Your task to perform on an android device: turn off translation in the chrome app Image 0: 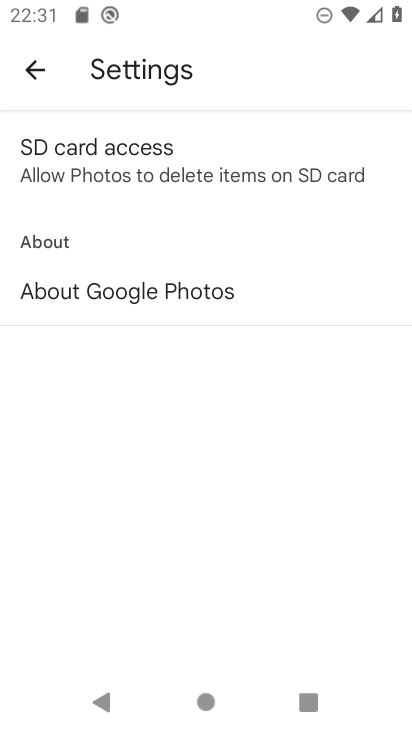
Step 0: press home button
Your task to perform on an android device: turn off translation in the chrome app Image 1: 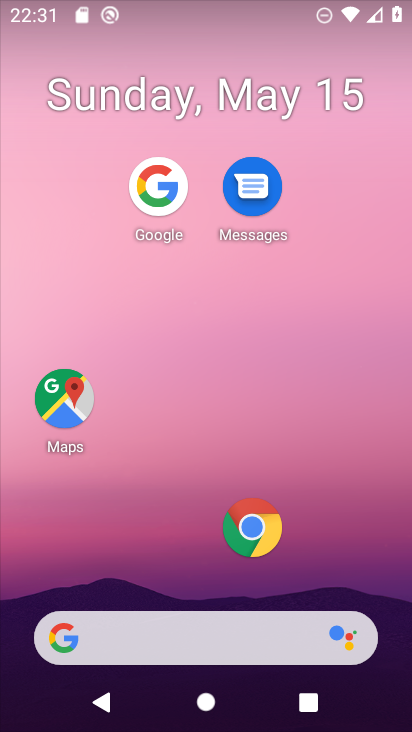
Step 1: press home button
Your task to perform on an android device: turn off translation in the chrome app Image 2: 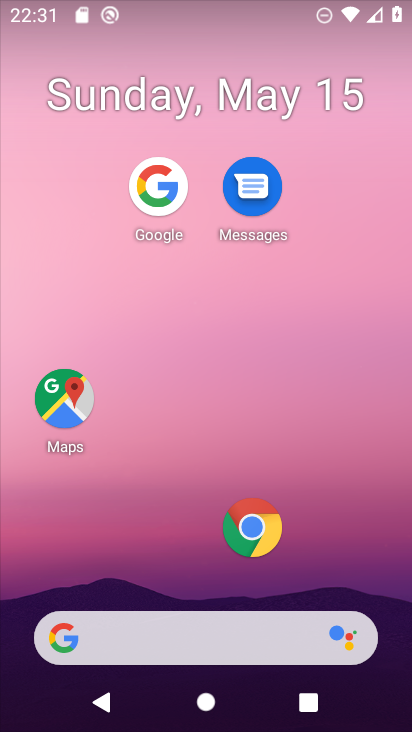
Step 2: click (265, 535)
Your task to perform on an android device: turn off translation in the chrome app Image 3: 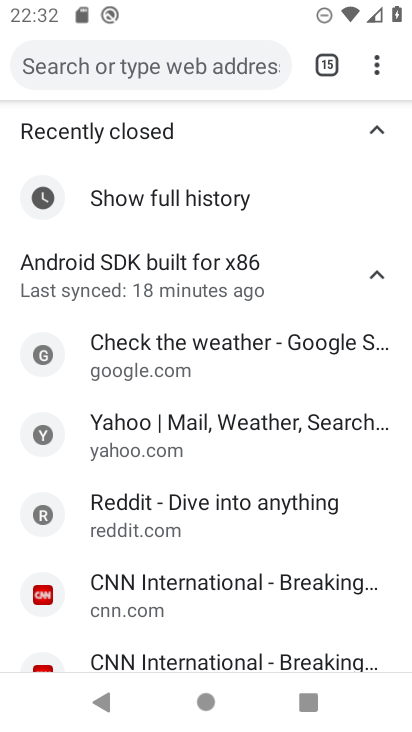
Step 3: drag from (375, 70) to (208, 547)
Your task to perform on an android device: turn off translation in the chrome app Image 4: 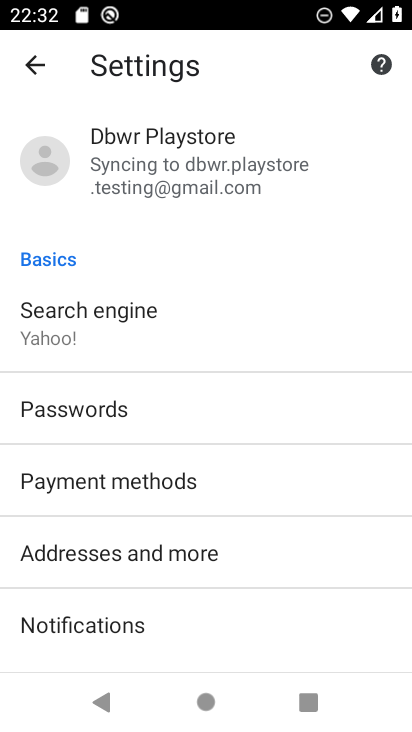
Step 4: drag from (182, 651) to (293, 220)
Your task to perform on an android device: turn off translation in the chrome app Image 5: 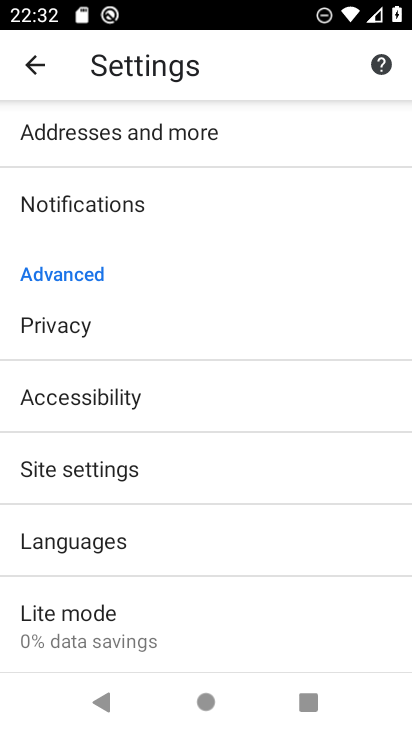
Step 5: click (123, 535)
Your task to perform on an android device: turn off translation in the chrome app Image 6: 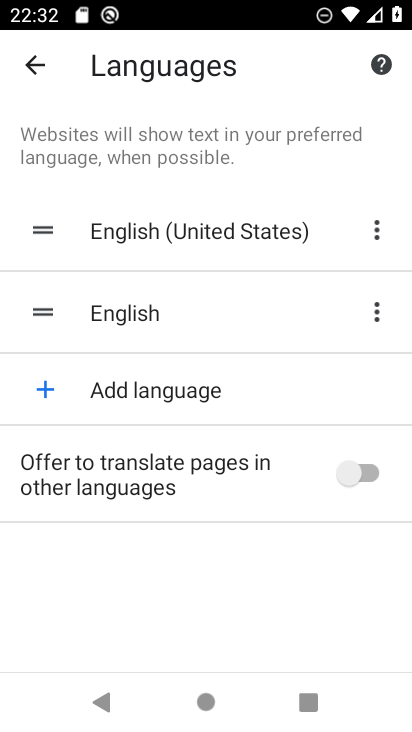
Step 6: task complete